Your task to perform on an android device: check data usage Image 0: 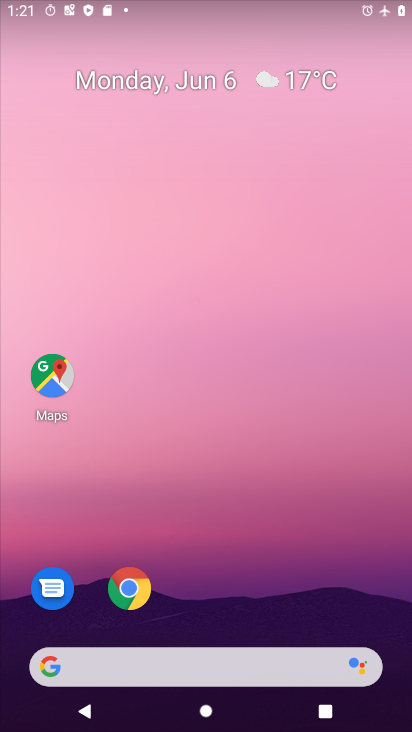
Step 0: drag from (275, 555) to (326, 124)
Your task to perform on an android device: check data usage Image 1: 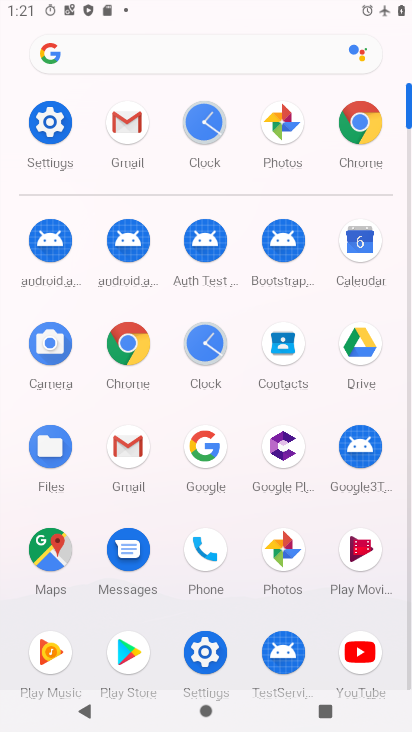
Step 1: click (50, 132)
Your task to perform on an android device: check data usage Image 2: 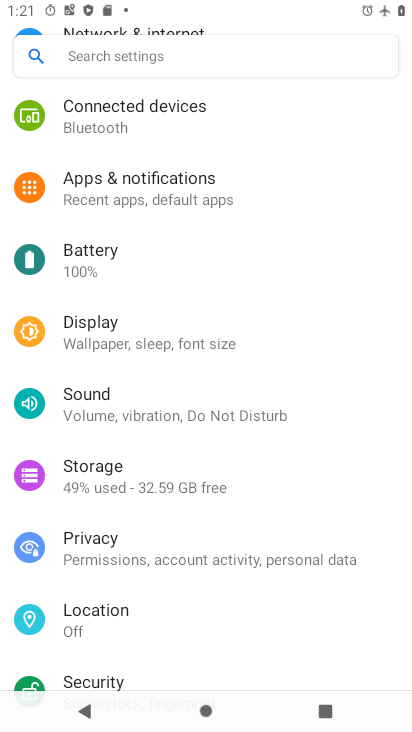
Step 2: drag from (173, 154) to (162, 494)
Your task to perform on an android device: check data usage Image 3: 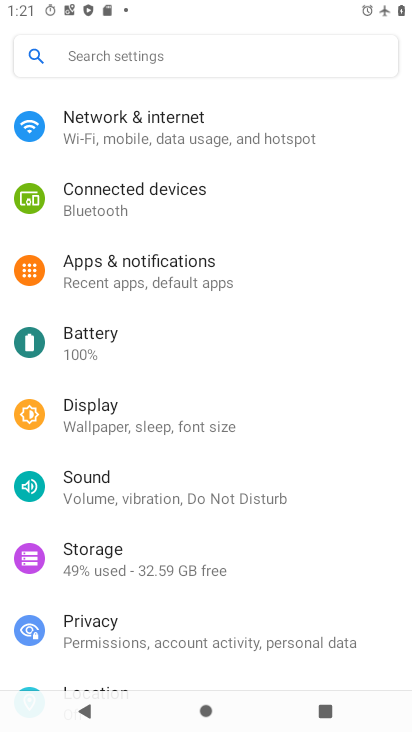
Step 3: click (207, 145)
Your task to perform on an android device: check data usage Image 4: 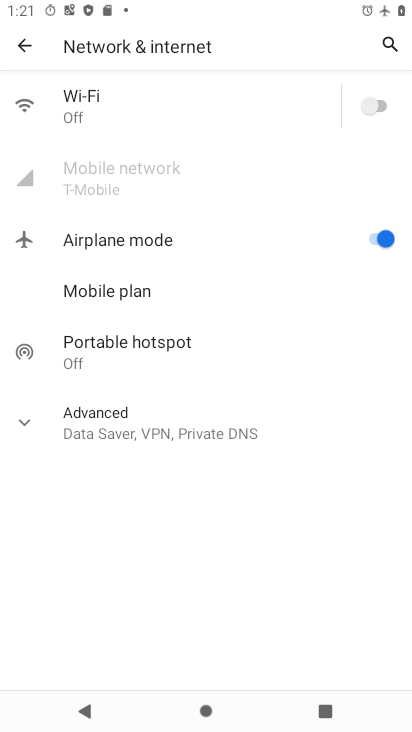
Step 4: click (137, 110)
Your task to perform on an android device: check data usage Image 5: 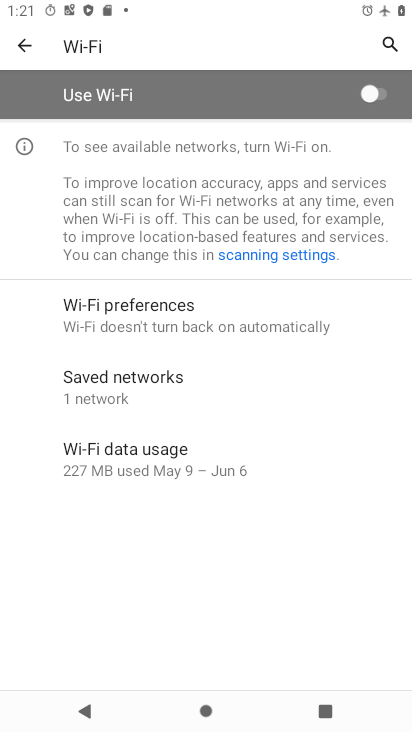
Step 5: click (159, 451)
Your task to perform on an android device: check data usage Image 6: 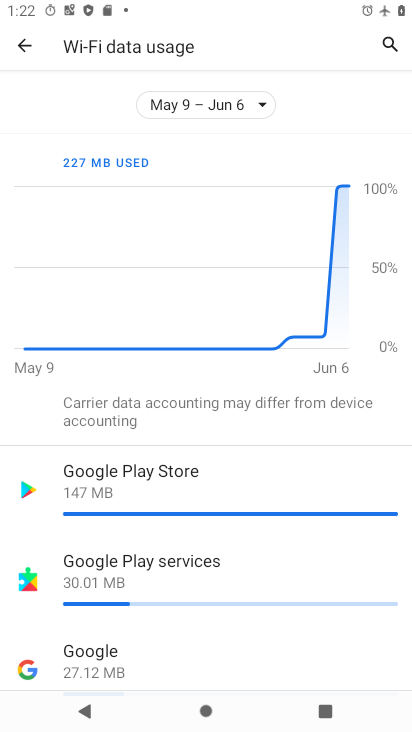
Step 6: task complete